Your task to perform on an android device: Play the last video I watched on Youtube Image 0: 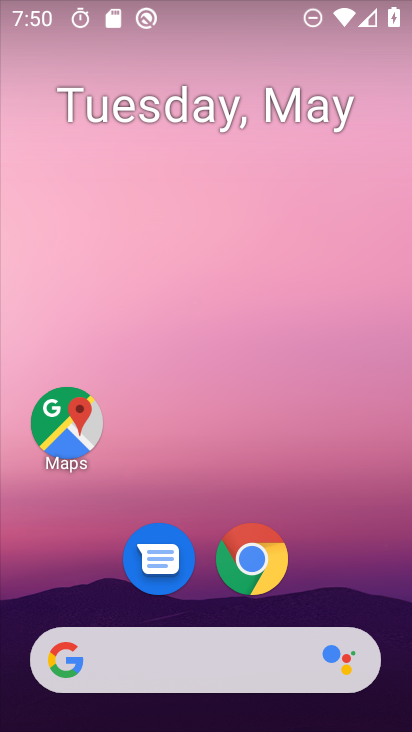
Step 0: drag from (388, 657) to (358, 56)
Your task to perform on an android device: Play the last video I watched on Youtube Image 1: 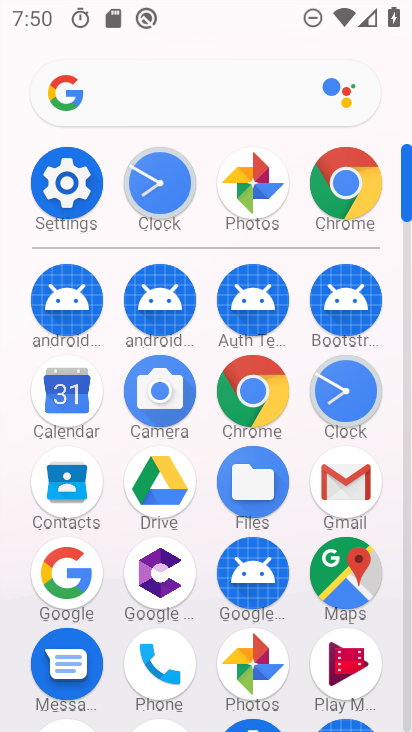
Step 1: drag from (295, 678) to (253, 136)
Your task to perform on an android device: Play the last video I watched on Youtube Image 2: 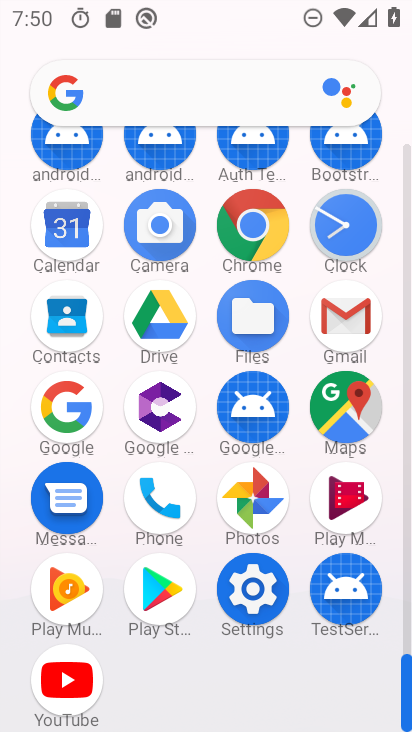
Step 2: click (63, 682)
Your task to perform on an android device: Play the last video I watched on Youtube Image 3: 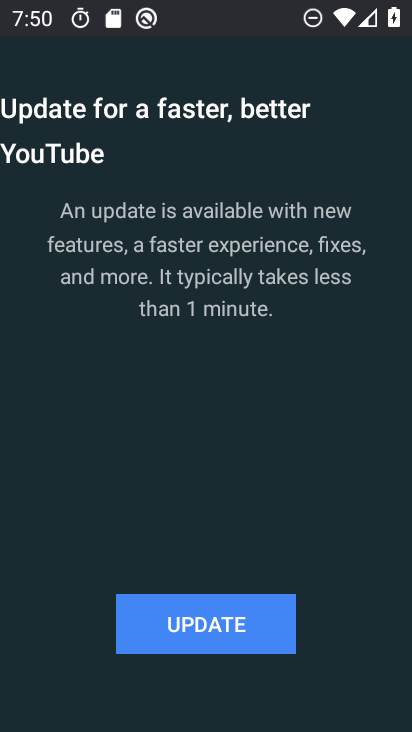
Step 3: click (183, 629)
Your task to perform on an android device: Play the last video I watched on Youtube Image 4: 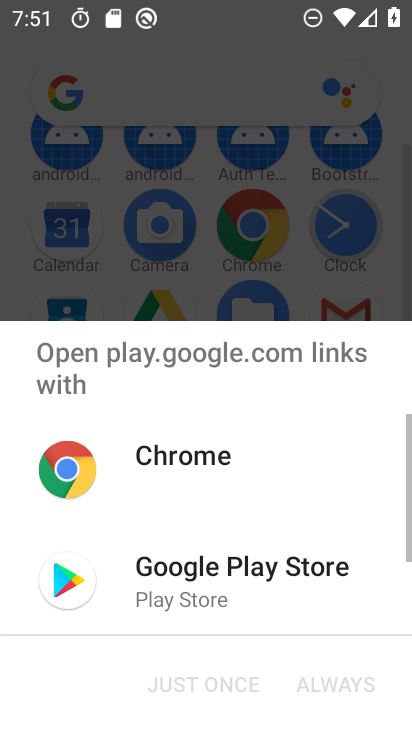
Step 4: click (197, 607)
Your task to perform on an android device: Play the last video I watched on Youtube Image 5: 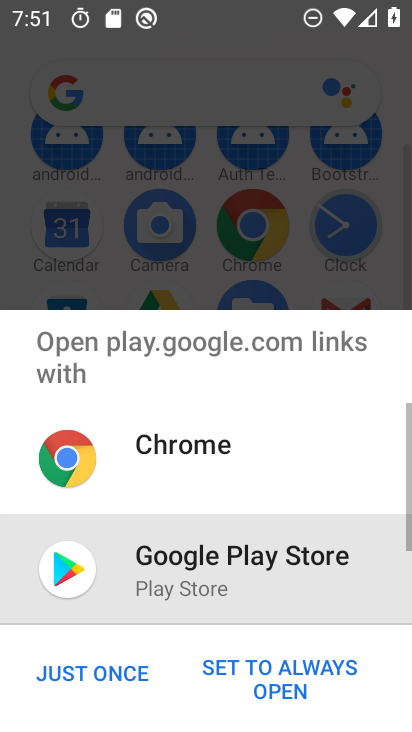
Step 5: click (110, 670)
Your task to perform on an android device: Play the last video I watched on Youtube Image 6: 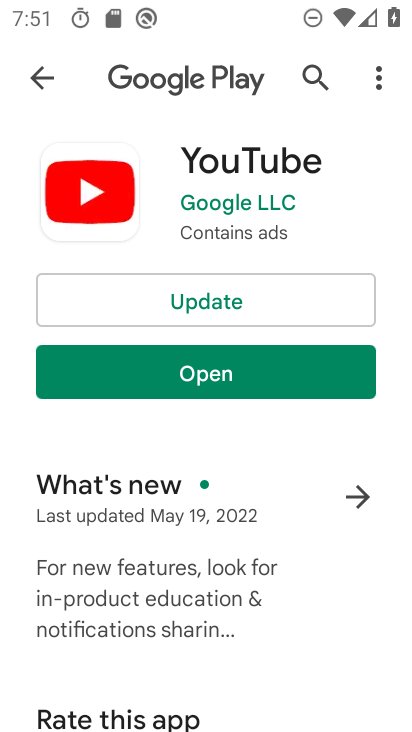
Step 6: click (240, 318)
Your task to perform on an android device: Play the last video I watched on Youtube Image 7: 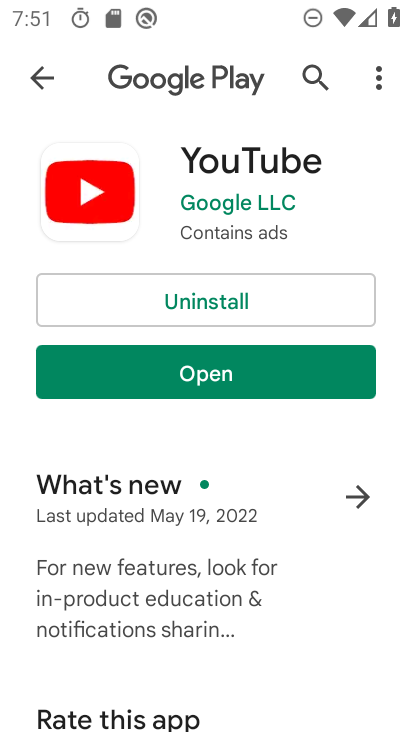
Step 7: click (205, 370)
Your task to perform on an android device: Play the last video I watched on Youtube Image 8: 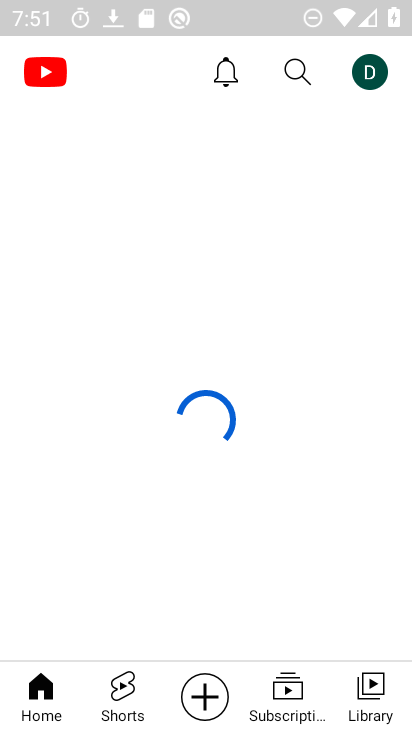
Step 8: click (372, 701)
Your task to perform on an android device: Play the last video I watched on Youtube Image 9: 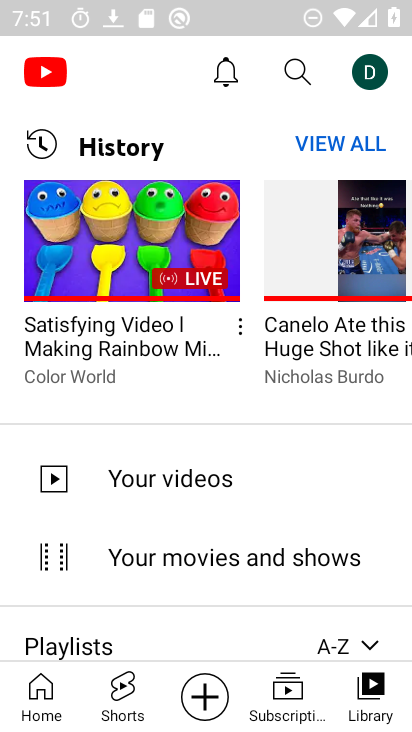
Step 9: click (74, 237)
Your task to perform on an android device: Play the last video I watched on Youtube Image 10: 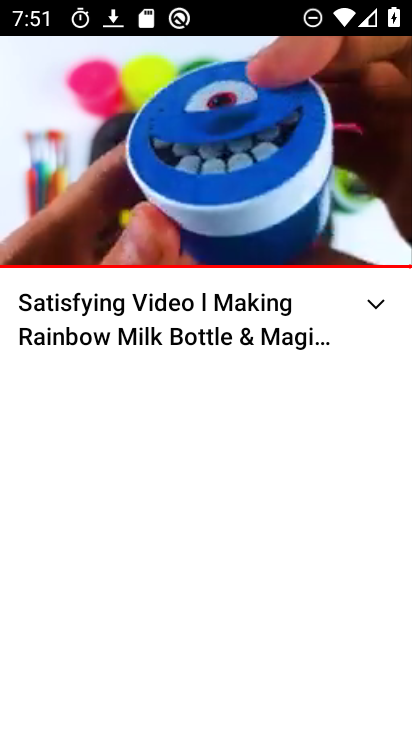
Step 10: click (226, 155)
Your task to perform on an android device: Play the last video I watched on Youtube Image 11: 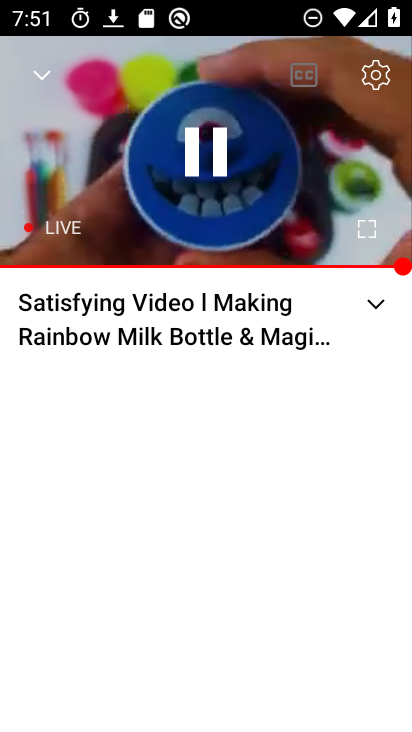
Step 11: click (215, 145)
Your task to perform on an android device: Play the last video I watched on Youtube Image 12: 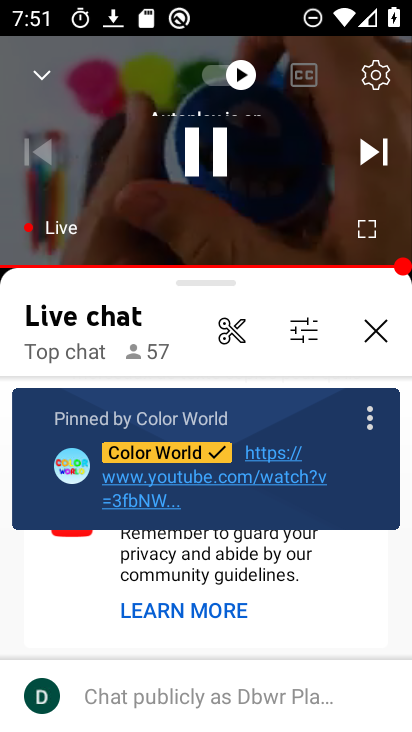
Step 12: click (215, 145)
Your task to perform on an android device: Play the last video I watched on Youtube Image 13: 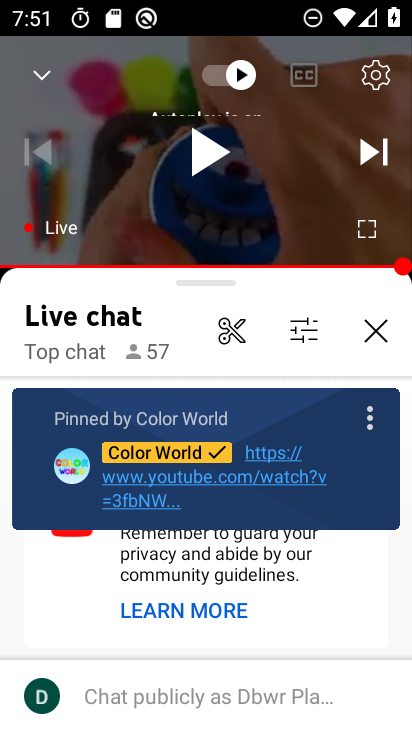
Step 13: task complete